Your task to perform on an android device: open chrome and create a bookmark for the current page Image 0: 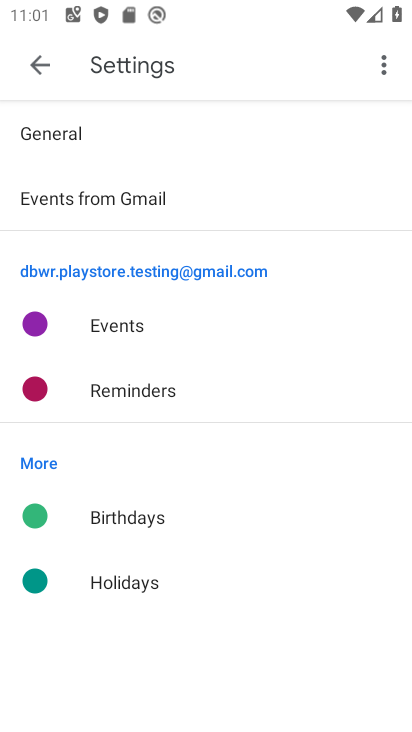
Step 0: press home button
Your task to perform on an android device: open chrome and create a bookmark for the current page Image 1: 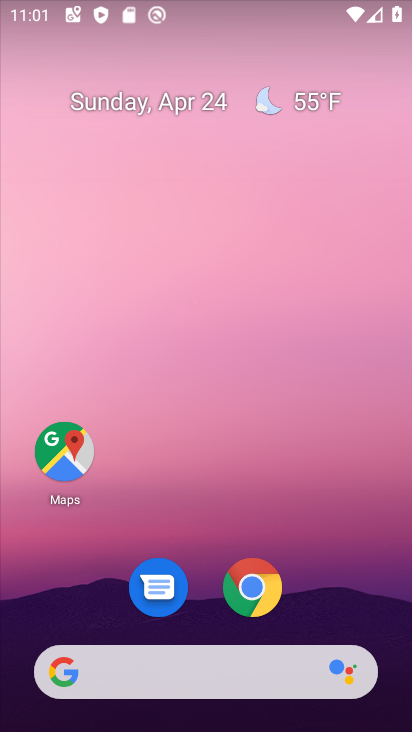
Step 1: drag from (342, 572) to (382, 147)
Your task to perform on an android device: open chrome and create a bookmark for the current page Image 2: 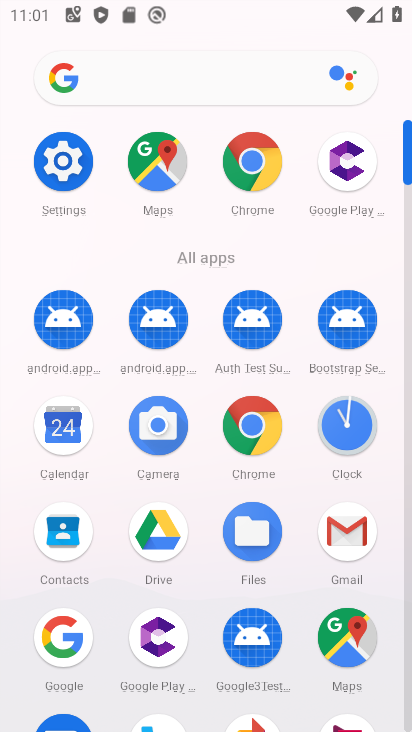
Step 2: click (253, 428)
Your task to perform on an android device: open chrome and create a bookmark for the current page Image 3: 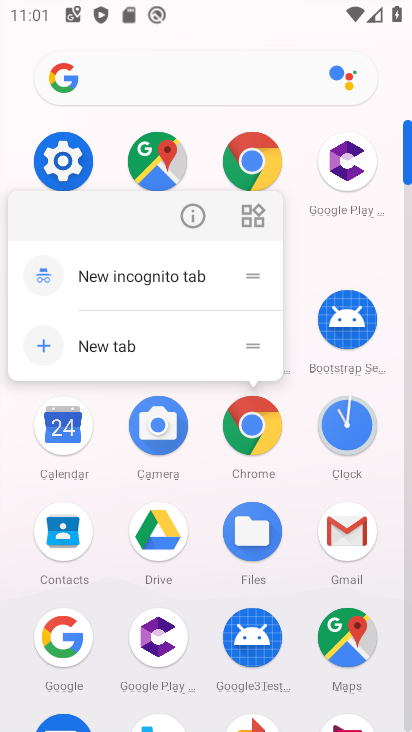
Step 3: click (253, 428)
Your task to perform on an android device: open chrome and create a bookmark for the current page Image 4: 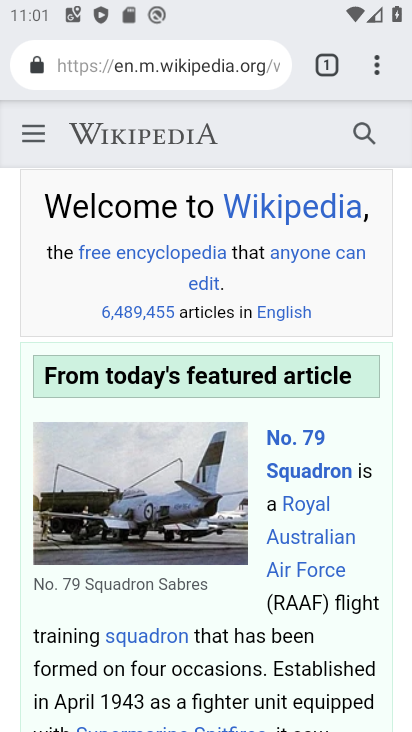
Step 4: task complete